Your task to perform on an android device: Open the phone app and click the voicemail tab. Image 0: 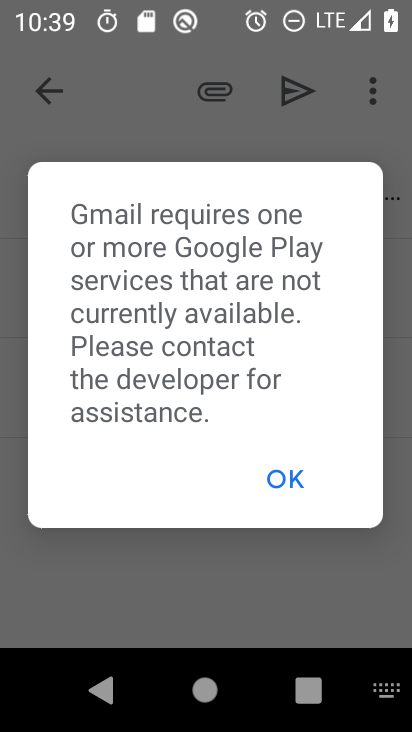
Step 0: click (202, 2)
Your task to perform on an android device: Open the phone app and click the voicemail tab. Image 1: 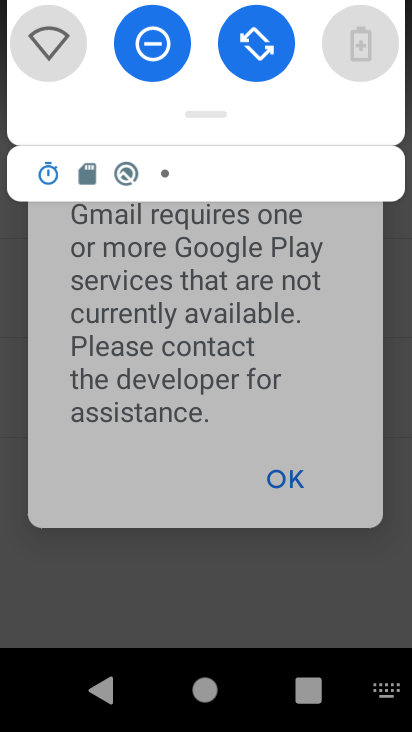
Step 1: click (303, 463)
Your task to perform on an android device: Open the phone app and click the voicemail tab. Image 2: 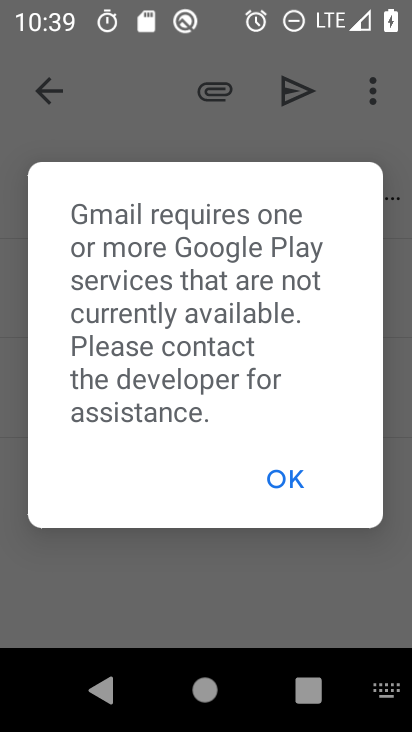
Step 2: press home button
Your task to perform on an android device: Open the phone app and click the voicemail tab. Image 3: 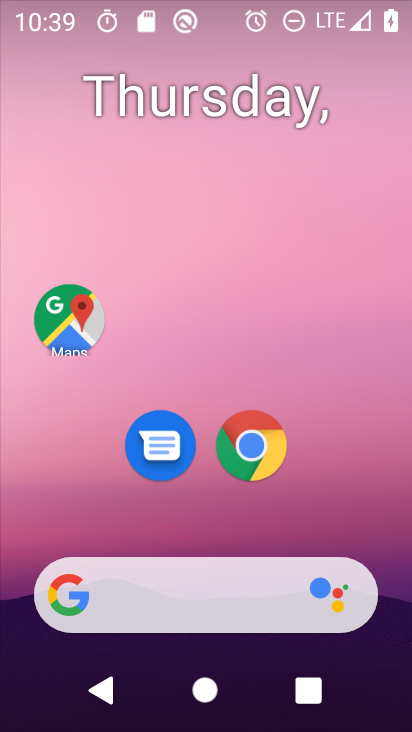
Step 3: drag from (229, 392) to (258, 135)
Your task to perform on an android device: Open the phone app and click the voicemail tab. Image 4: 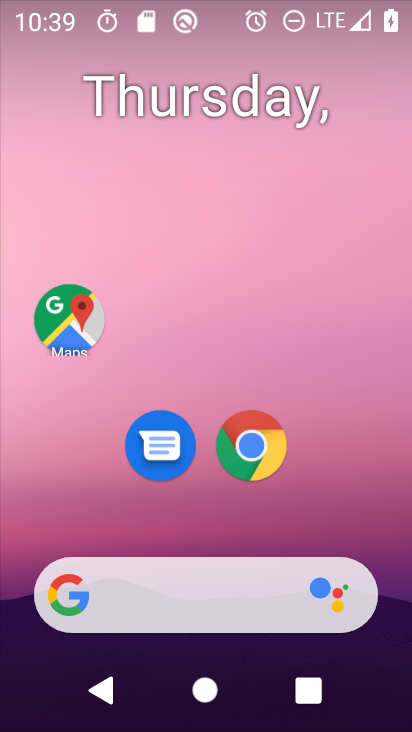
Step 4: drag from (198, 524) to (235, 95)
Your task to perform on an android device: Open the phone app and click the voicemail tab. Image 5: 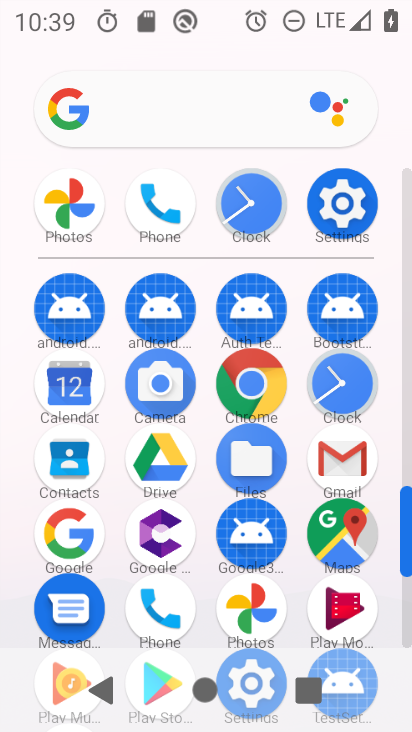
Step 5: click (335, 199)
Your task to perform on an android device: Open the phone app and click the voicemail tab. Image 6: 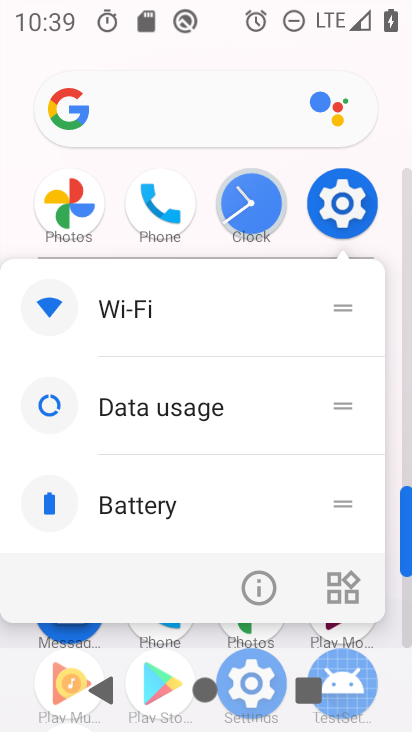
Step 6: click (272, 600)
Your task to perform on an android device: Open the phone app and click the voicemail tab. Image 7: 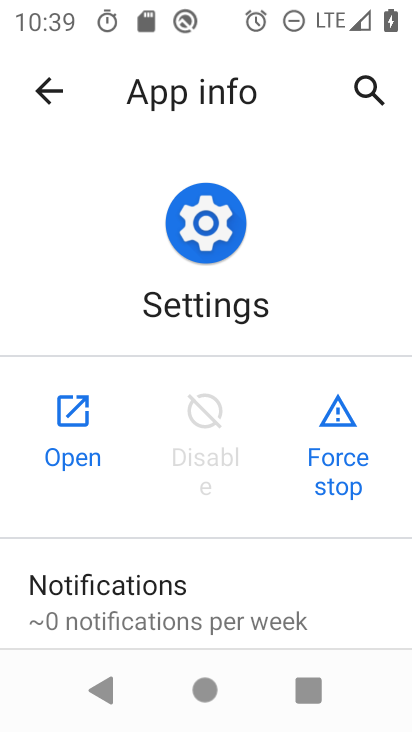
Step 7: press back button
Your task to perform on an android device: Open the phone app and click the voicemail tab. Image 8: 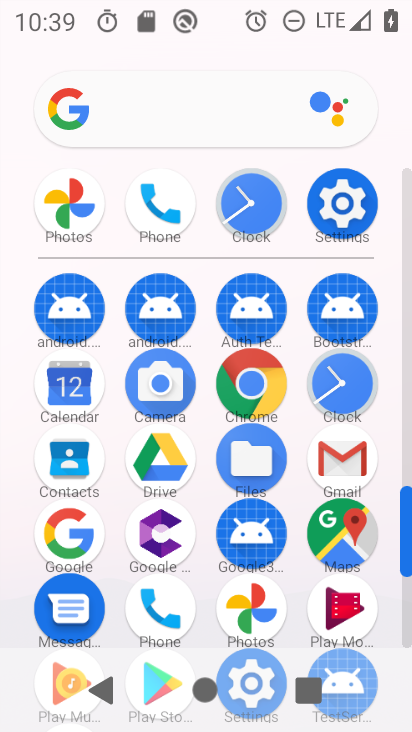
Step 8: click (153, 602)
Your task to perform on an android device: Open the phone app and click the voicemail tab. Image 9: 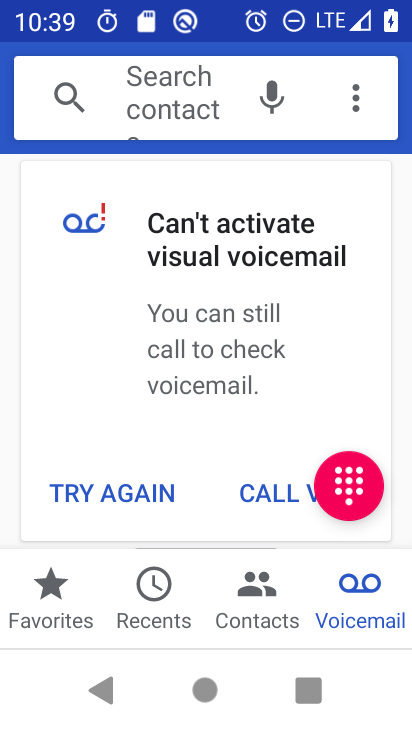
Step 9: click (354, 604)
Your task to perform on an android device: Open the phone app and click the voicemail tab. Image 10: 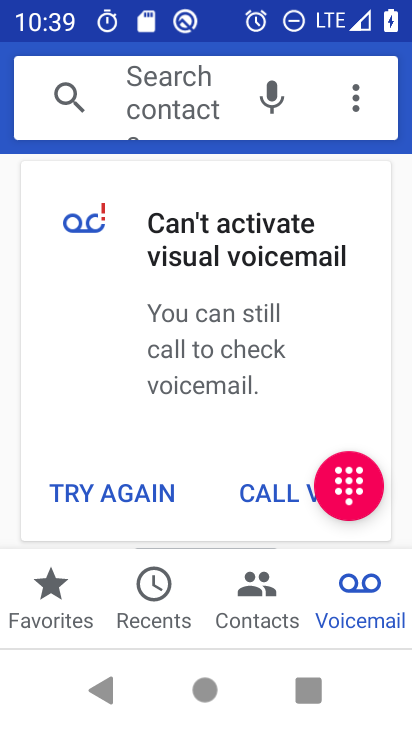
Step 10: task complete